Your task to perform on an android device: find snoozed emails in the gmail app Image 0: 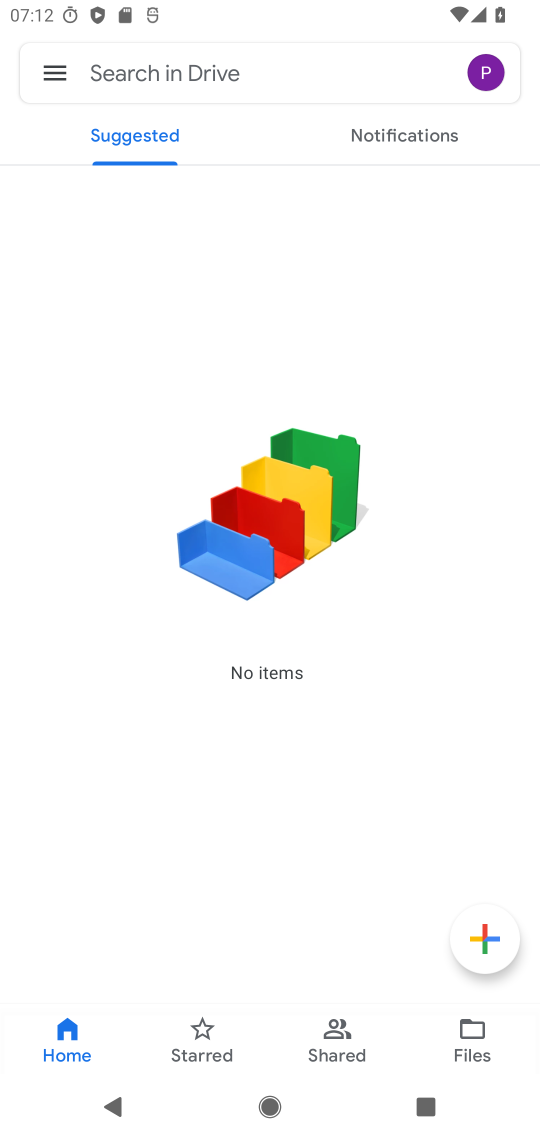
Step 0: press home button
Your task to perform on an android device: find snoozed emails in the gmail app Image 1: 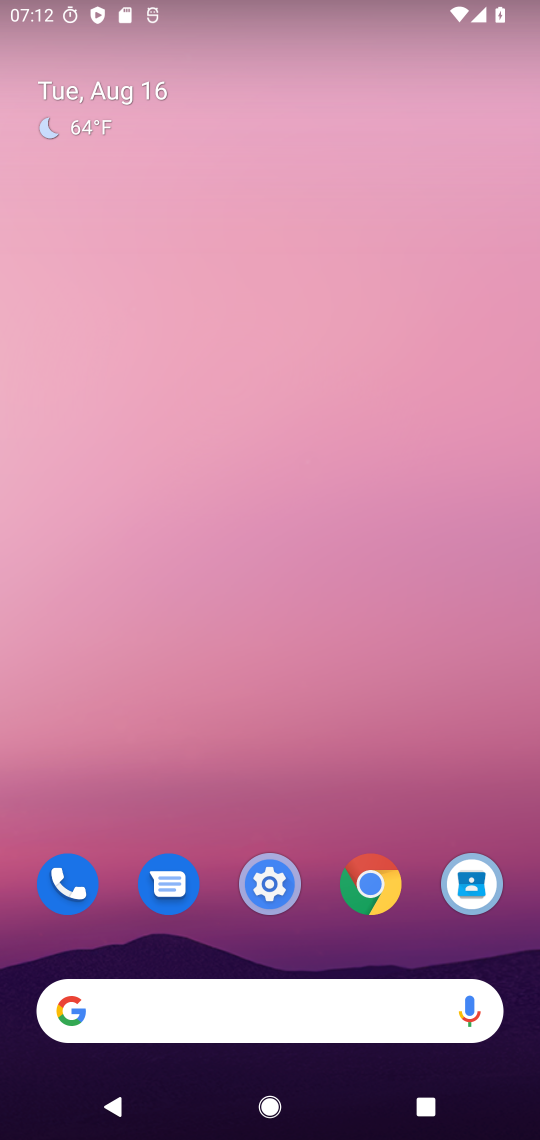
Step 1: drag from (310, 805) to (270, 5)
Your task to perform on an android device: find snoozed emails in the gmail app Image 2: 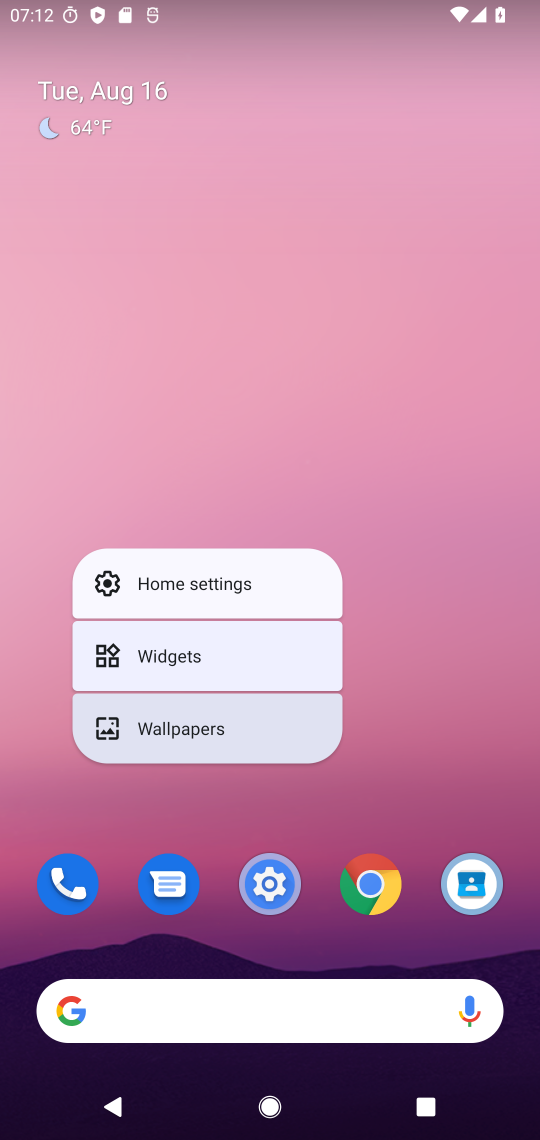
Step 2: drag from (422, 732) to (403, 14)
Your task to perform on an android device: find snoozed emails in the gmail app Image 3: 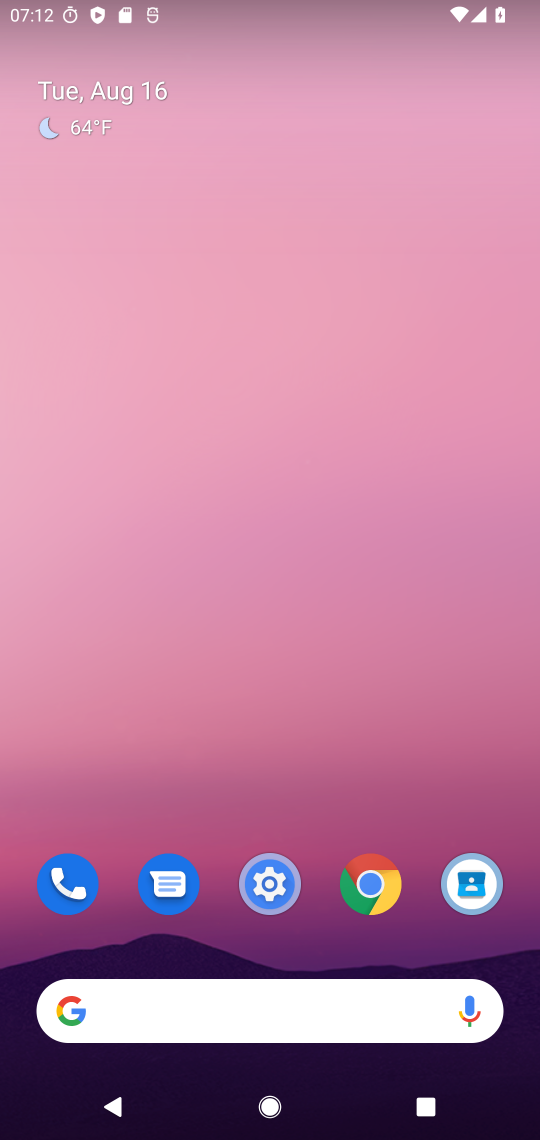
Step 3: click (290, 805)
Your task to perform on an android device: find snoozed emails in the gmail app Image 4: 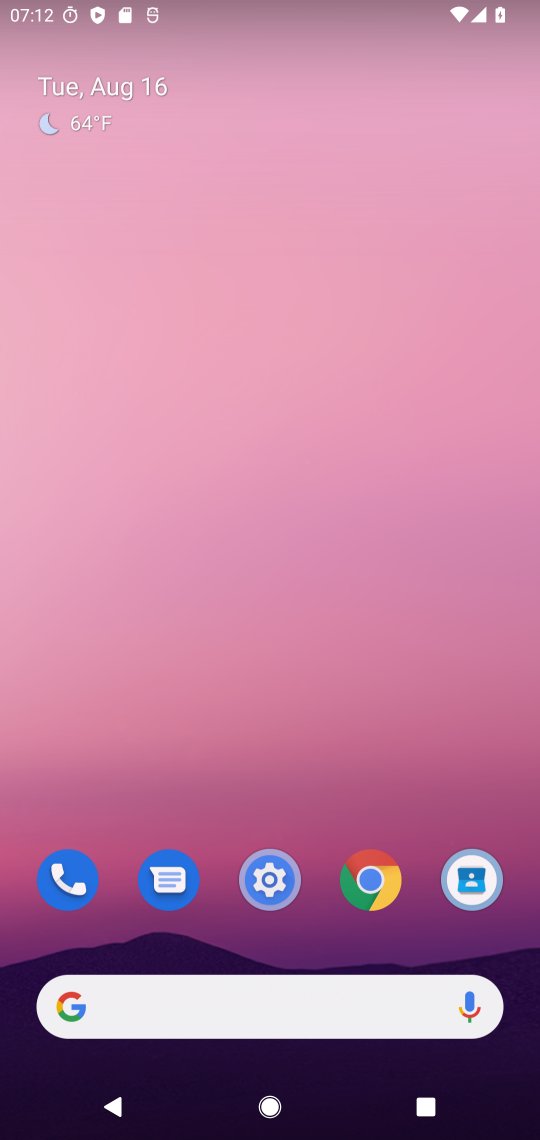
Step 4: press home button
Your task to perform on an android device: find snoozed emails in the gmail app Image 5: 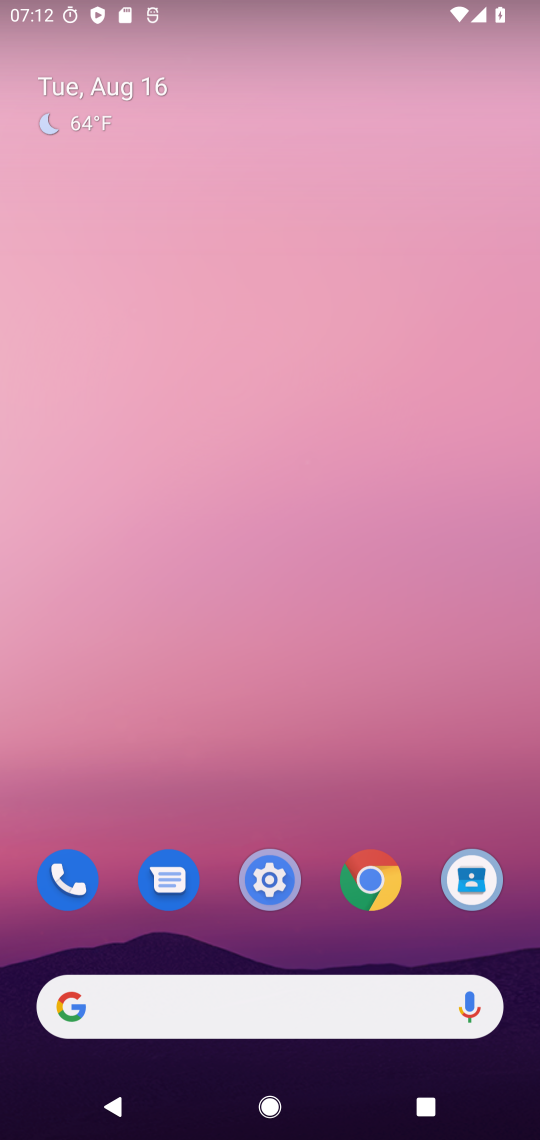
Step 5: drag from (292, 787) to (537, 660)
Your task to perform on an android device: find snoozed emails in the gmail app Image 6: 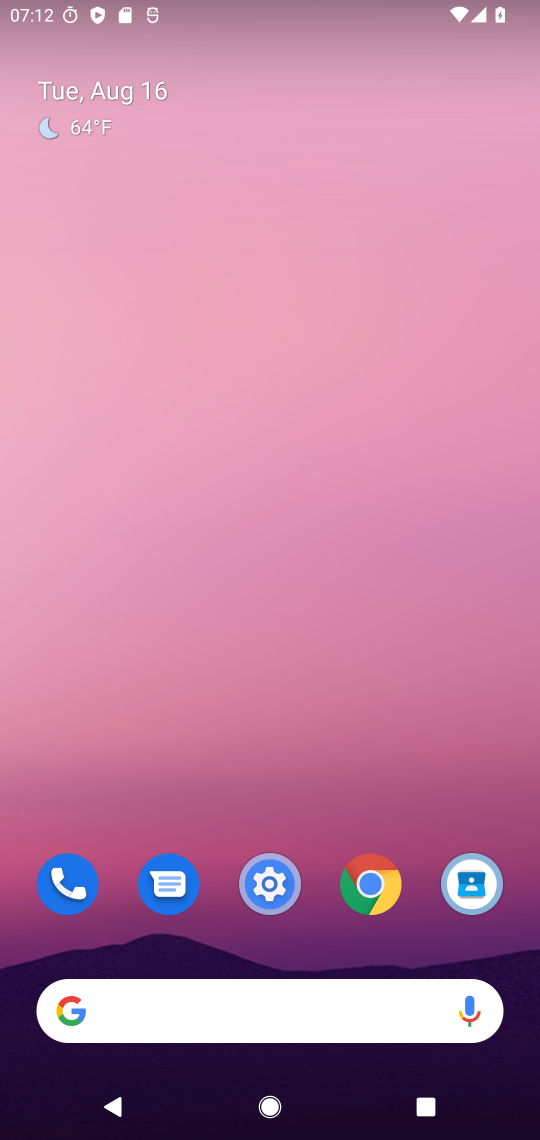
Step 6: drag from (288, 724) to (84, 335)
Your task to perform on an android device: find snoozed emails in the gmail app Image 7: 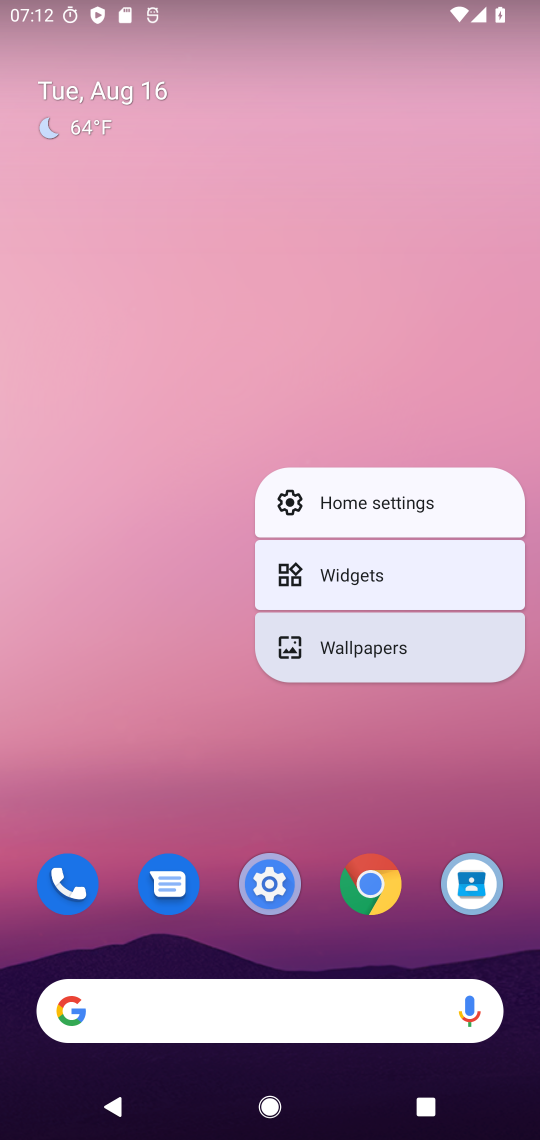
Step 7: press home button
Your task to perform on an android device: find snoozed emails in the gmail app Image 8: 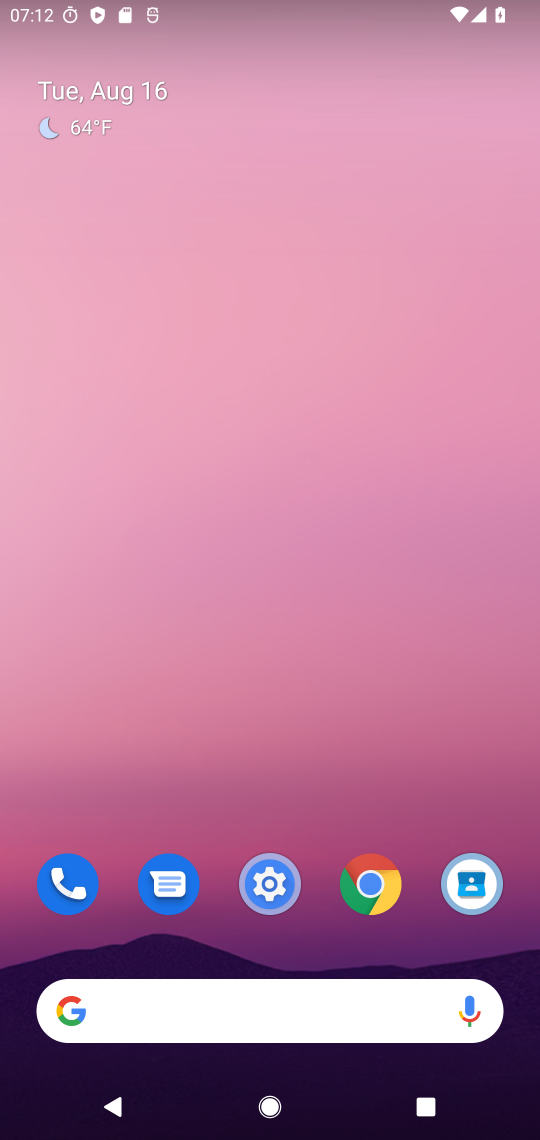
Step 8: drag from (321, 804) to (5, 321)
Your task to perform on an android device: find snoozed emails in the gmail app Image 9: 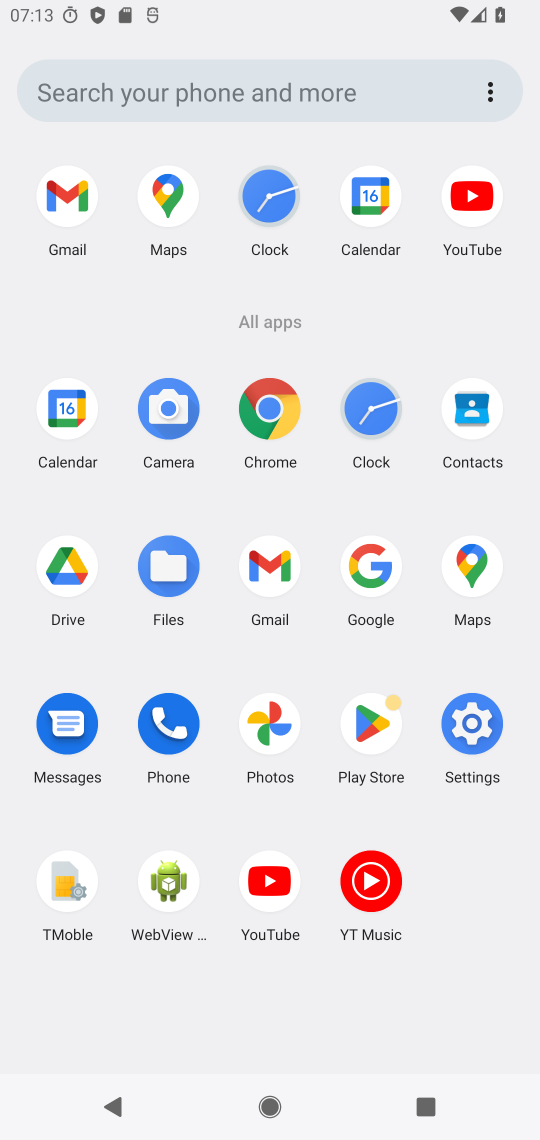
Step 9: click (270, 551)
Your task to perform on an android device: find snoozed emails in the gmail app Image 10: 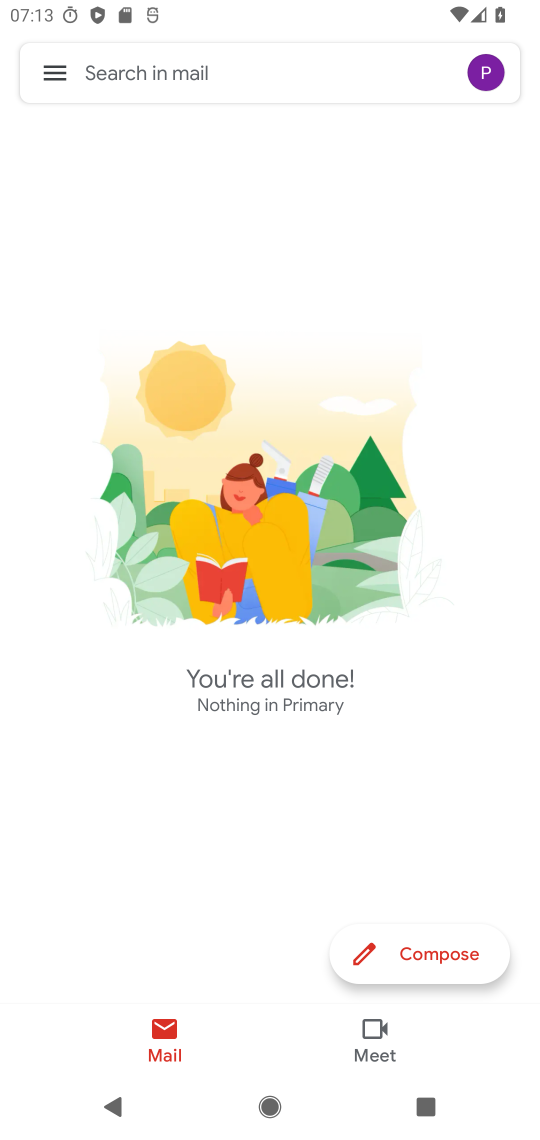
Step 10: click (56, 71)
Your task to perform on an android device: find snoozed emails in the gmail app Image 11: 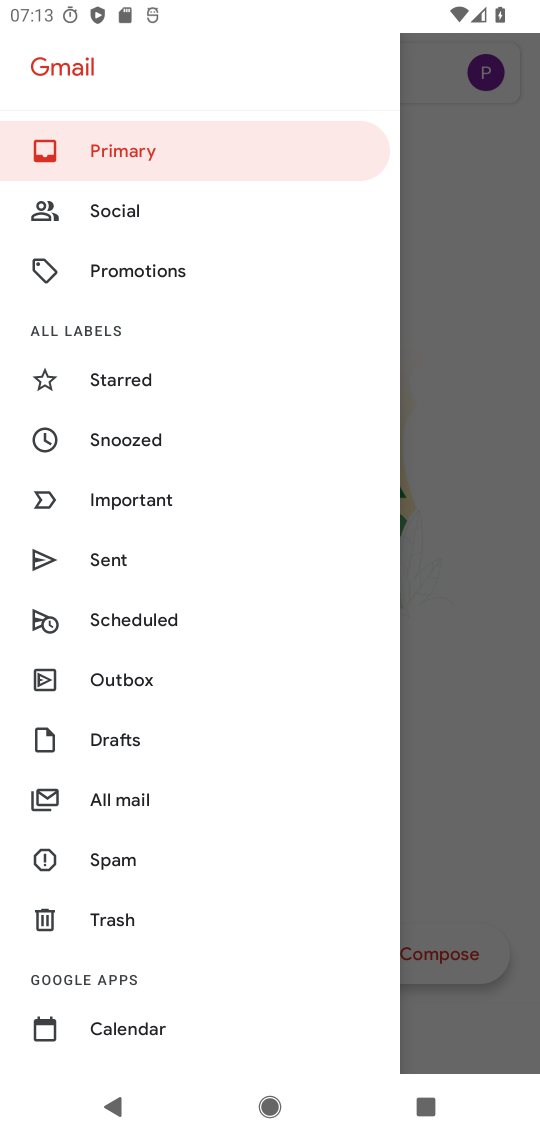
Step 11: click (114, 435)
Your task to perform on an android device: find snoozed emails in the gmail app Image 12: 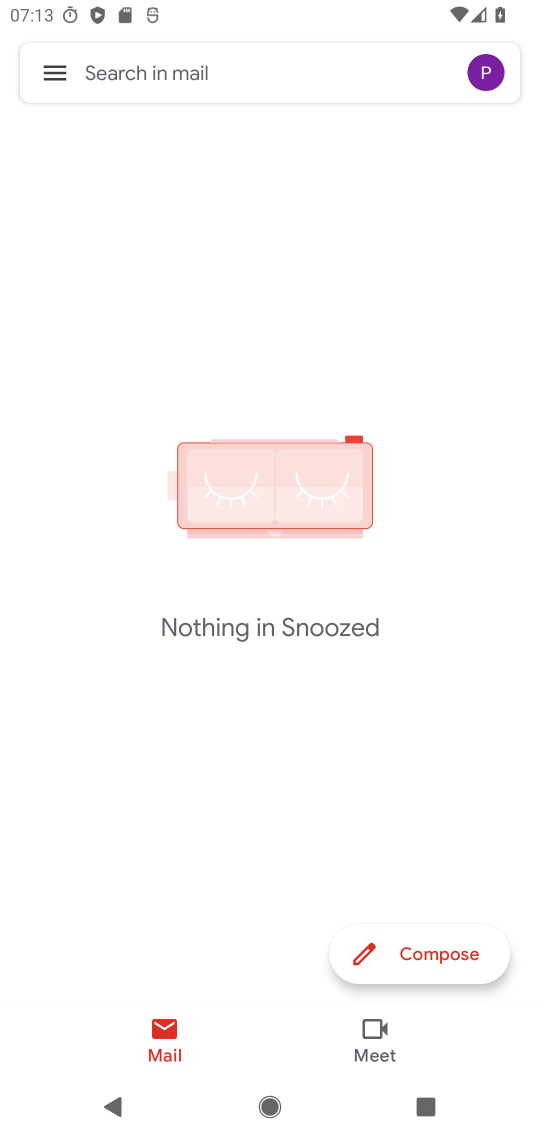
Step 12: task complete